Your task to perform on an android device: Search for pizza restaurants on Maps Image 0: 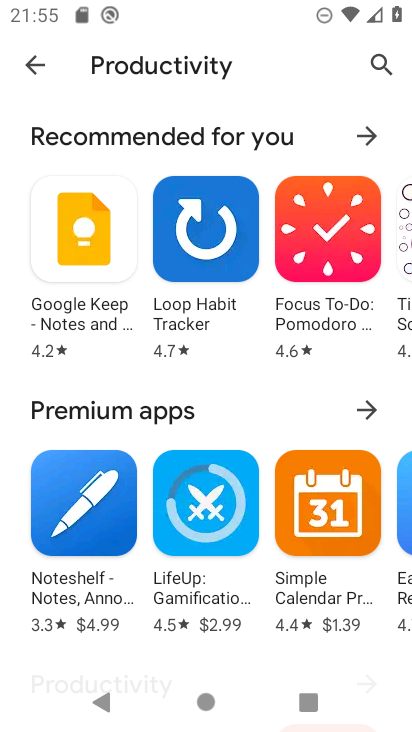
Step 0: press home button
Your task to perform on an android device: Search for pizza restaurants on Maps Image 1: 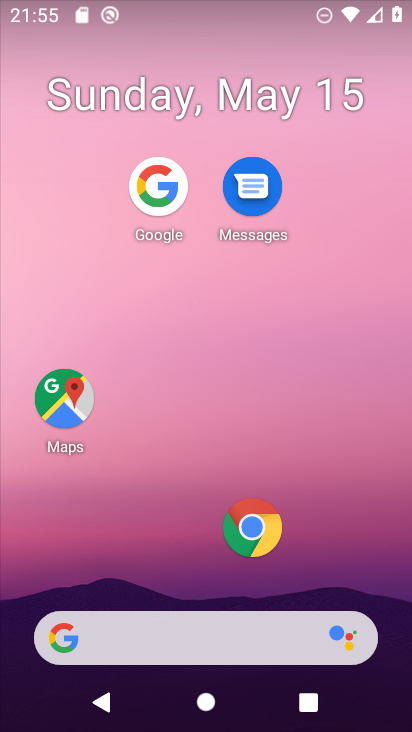
Step 1: click (51, 414)
Your task to perform on an android device: Search for pizza restaurants on Maps Image 2: 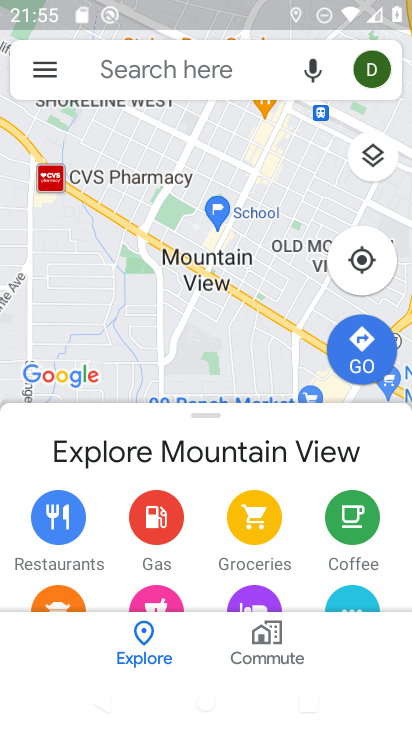
Step 2: click (175, 59)
Your task to perform on an android device: Search for pizza restaurants on Maps Image 3: 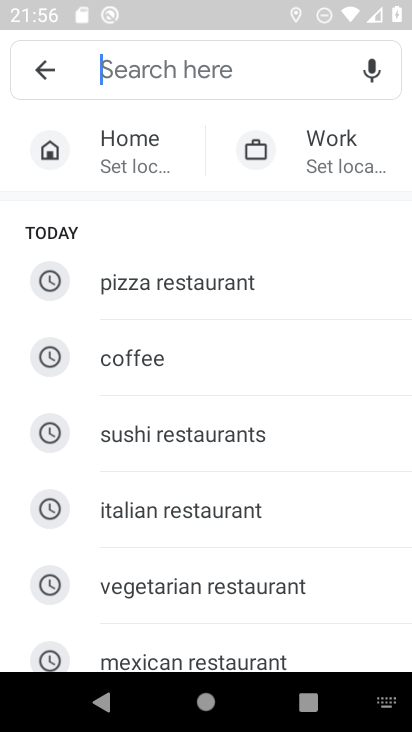
Step 3: click (194, 290)
Your task to perform on an android device: Search for pizza restaurants on Maps Image 4: 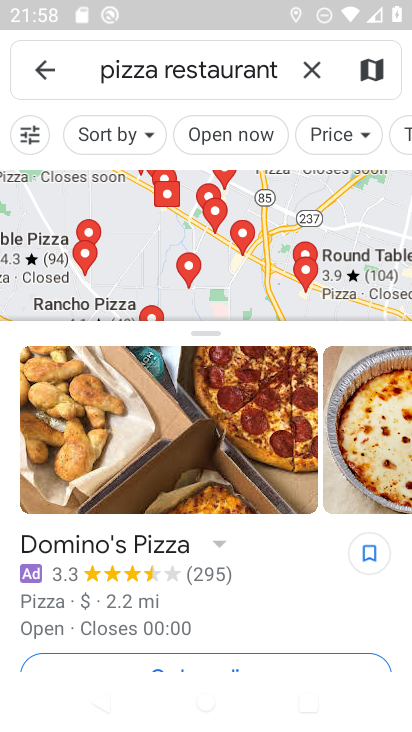
Step 4: task complete